Your task to perform on an android device: open a new tab in the chrome app Image 0: 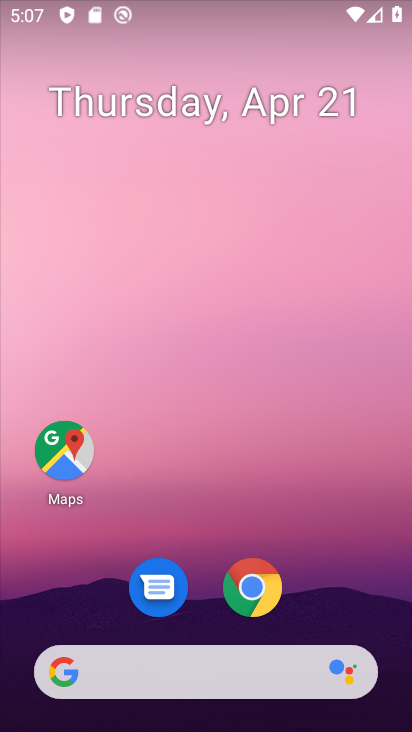
Step 0: press home button
Your task to perform on an android device: open a new tab in the chrome app Image 1: 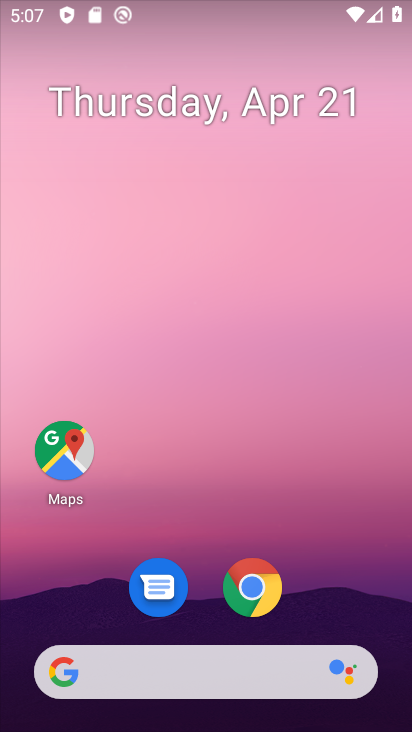
Step 1: click (254, 585)
Your task to perform on an android device: open a new tab in the chrome app Image 2: 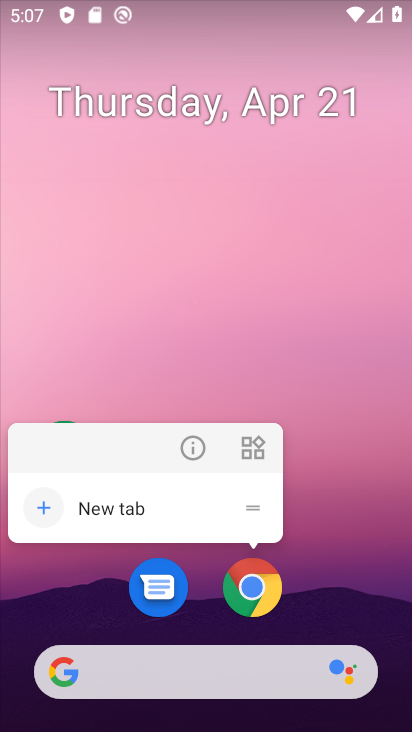
Step 2: click (254, 585)
Your task to perform on an android device: open a new tab in the chrome app Image 3: 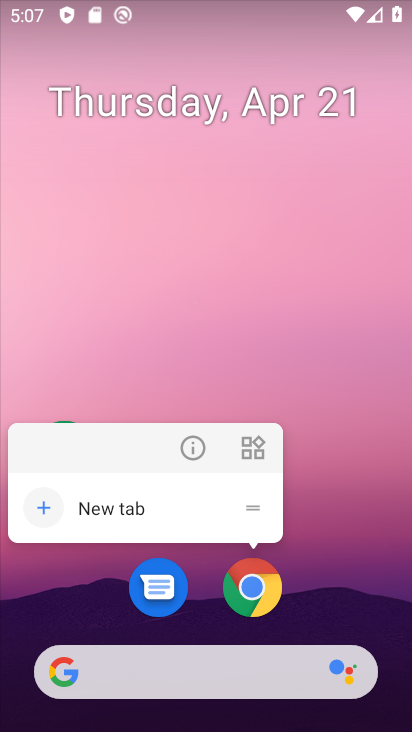
Step 3: click (254, 585)
Your task to perform on an android device: open a new tab in the chrome app Image 4: 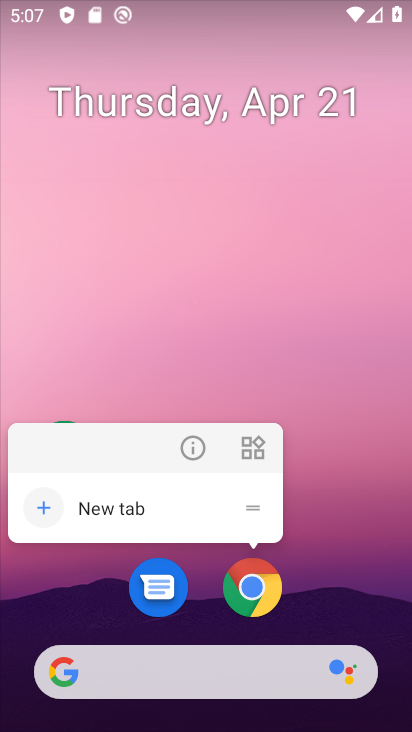
Step 4: click (295, 582)
Your task to perform on an android device: open a new tab in the chrome app Image 5: 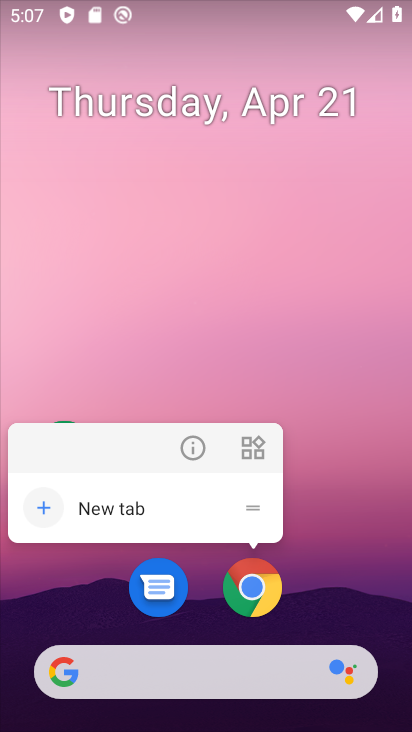
Step 5: click (334, 585)
Your task to perform on an android device: open a new tab in the chrome app Image 6: 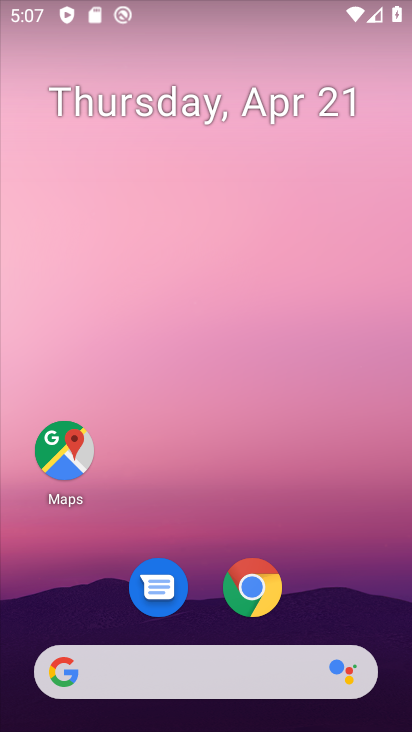
Step 6: click (250, 584)
Your task to perform on an android device: open a new tab in the chrome app Image 7: 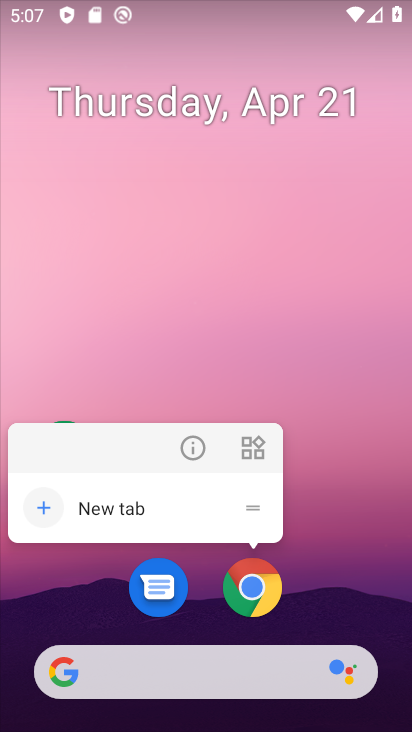
Step 7: drag from (294, 624) to (324, 94)
Your task to perform on an android device: open a new tab in the chrome app Image 8: 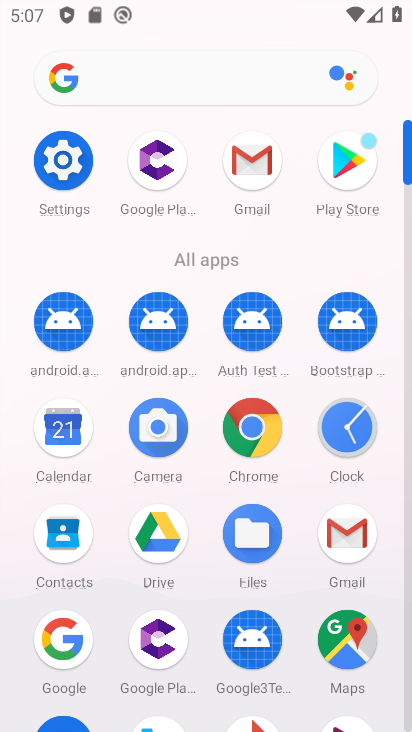
Step 8: click (250, 420)
Your task to perform on an android device: open a new tab in the chrome app Image 9: 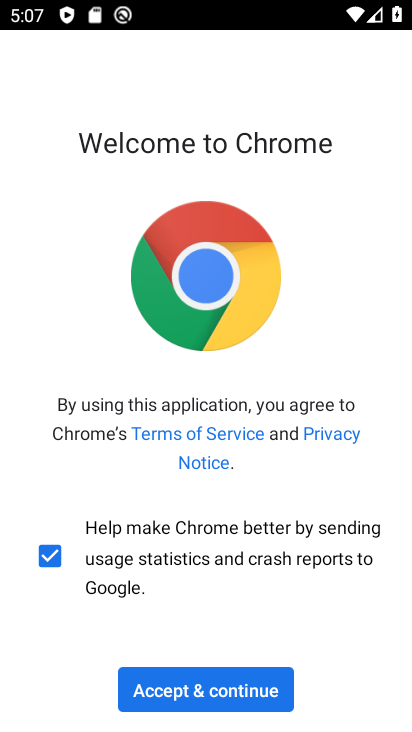
Step 9: click (210, 678)
Your task to perform on an android device: open a new tab in the chrome app Image 10: 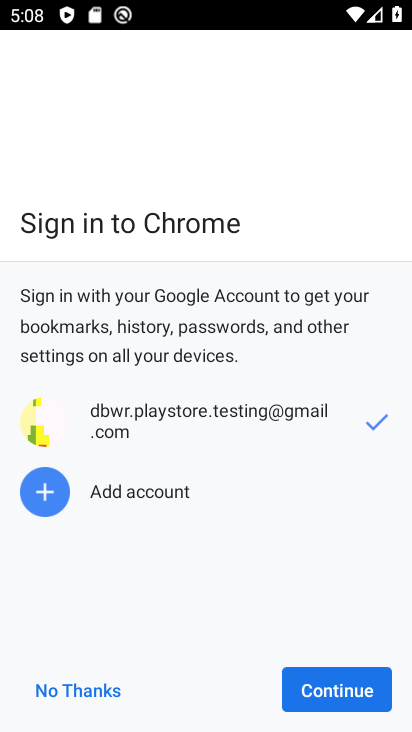
Step 10: click (323, 704)
Your task to perform on an android device: open a new tab in the chrome app Image 11: 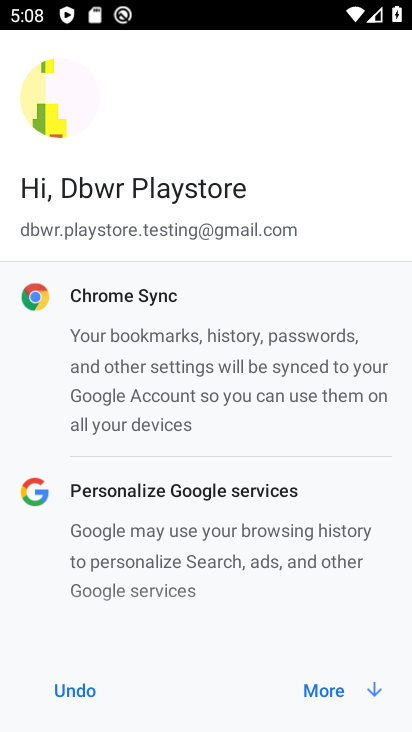
Step 11: click (326, 689)
Your task to perform on an android device: open a new tab in the chrome app Image 12: 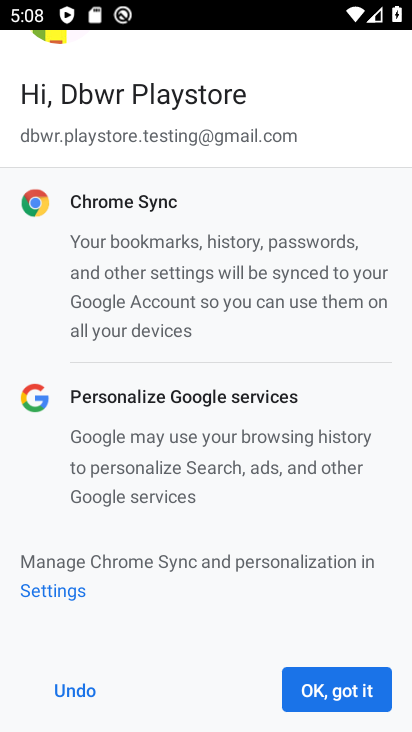
Step 12: click (326, 689)
Your task to perform on an android device: open a new tab in the chrome app Image 13: 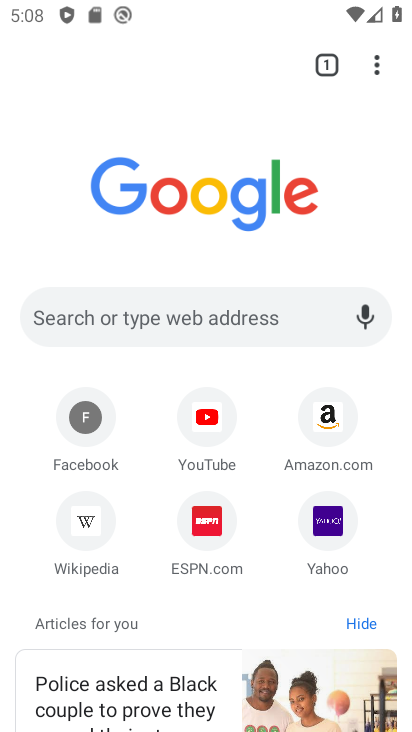
Step 13: click (332, 56)
Your task to perform on an android device: open a new tab in the chrome app Image 14: 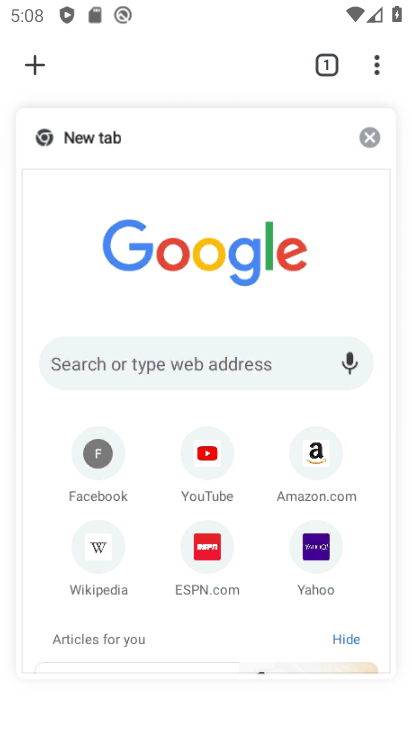
Step 14: click (26, 67)
Your task to perform on an android device: open a new tab in the chrome app Image 15: 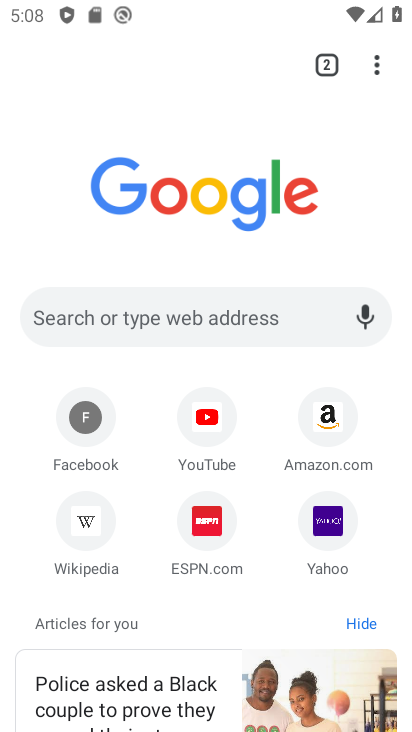
Step 15: task complete